Your task to perform on an android device: manage bookmarks in the chrome app Image 0: 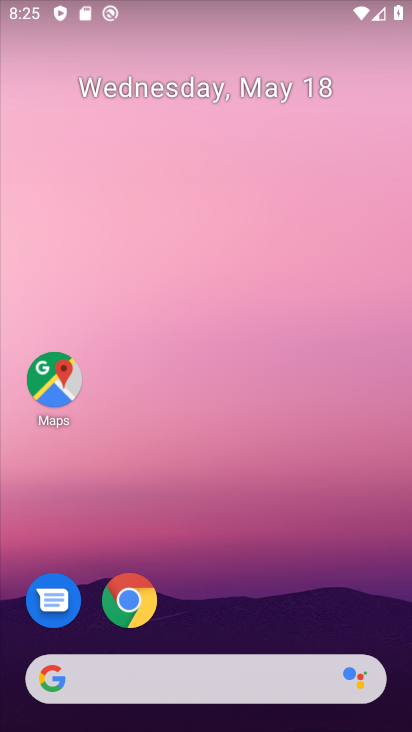
Step 0: click (116, 605)
Your task to perform on an android device: manage bookmarks in the chrome app Image 1: 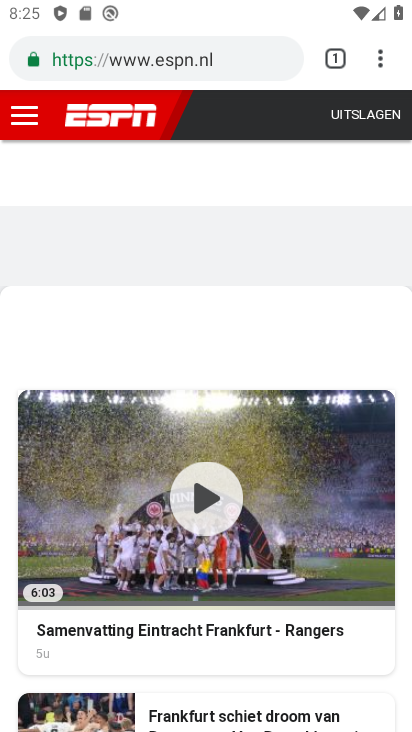
Step 1: click (380, 65)
Your task to perform on an android device: manage bookmarks in the chrome app Image 2: 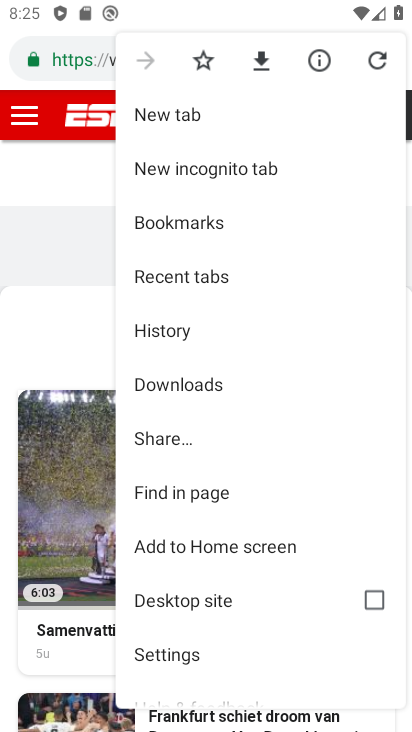
Step 2: click (230, 217)
Your task to perform on an android device: manage bookmarks in the chrome app Image 3: 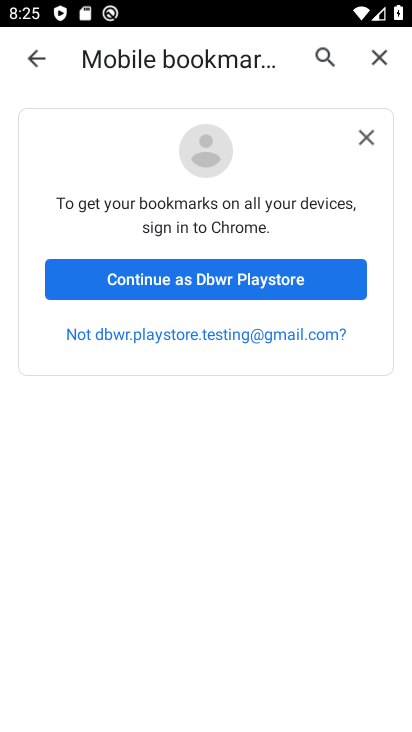
Step 3: click (363, 140)
Your task to perform on an android device: manage bookmarks in the chrome app Image 4: 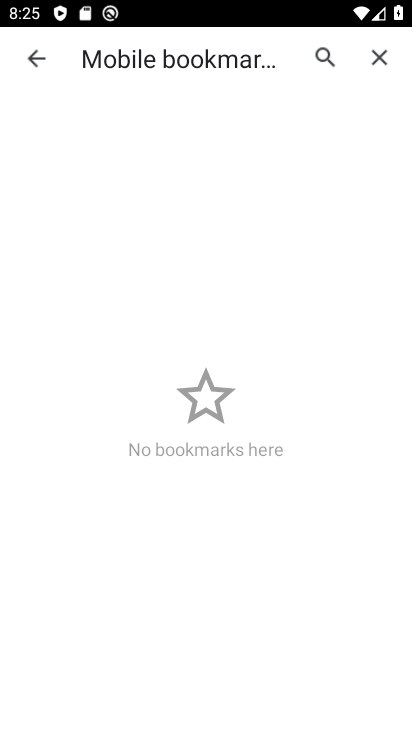
Step 4: task complete